Your task to perform on an android device: What is the news today? Image 0: 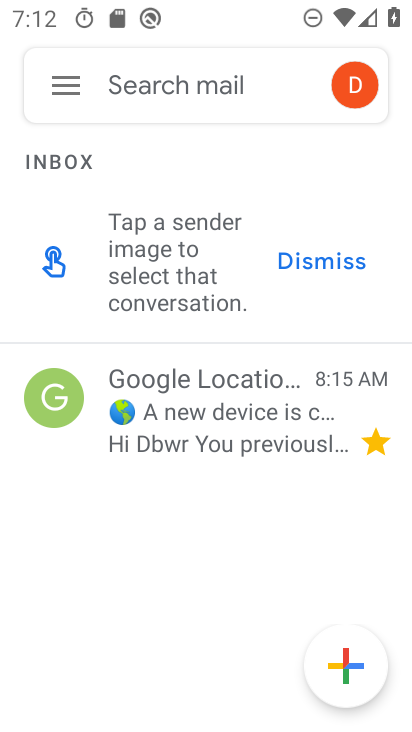
Step 0: press home button
Your task to perform on an android device: What is the news today? Image 1: 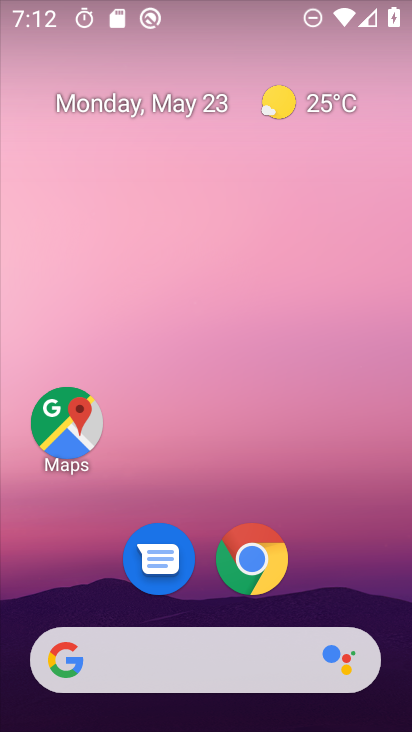
Step 1: drag from (408, 634) to (226, 1)
Your task to perform on an android device: What is the news today? Image 2: 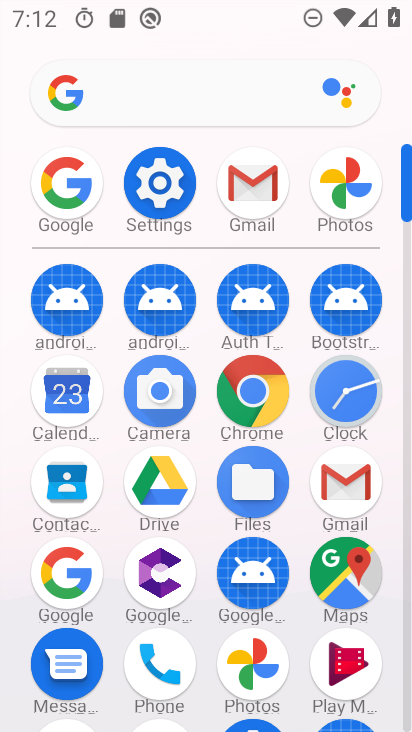
Step 2: click (70, 192)
Your task to perform on an android device: What is the news today? Image 3: 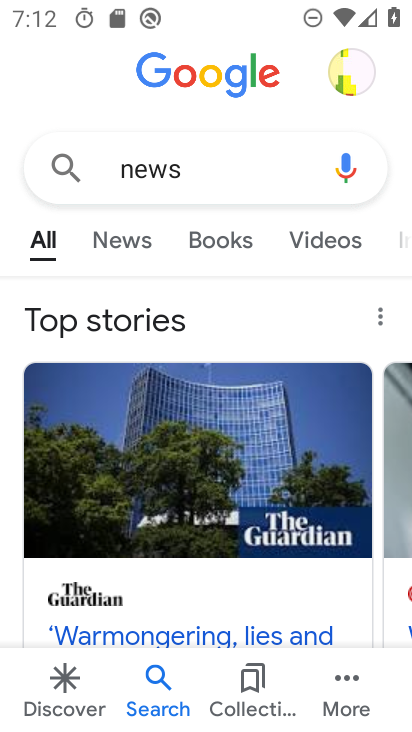
Step 3: press back button
Your task to perform on an android device: What is the news today? Image 4: 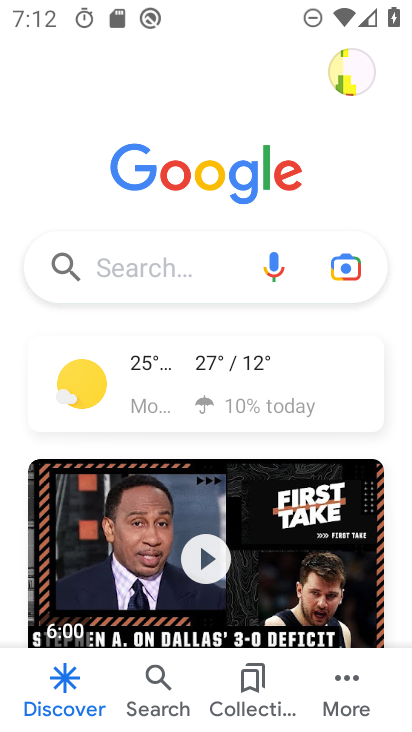
Step 4: click (155, 267)
Your task to perform on an android device: What is the news today? Image 5: 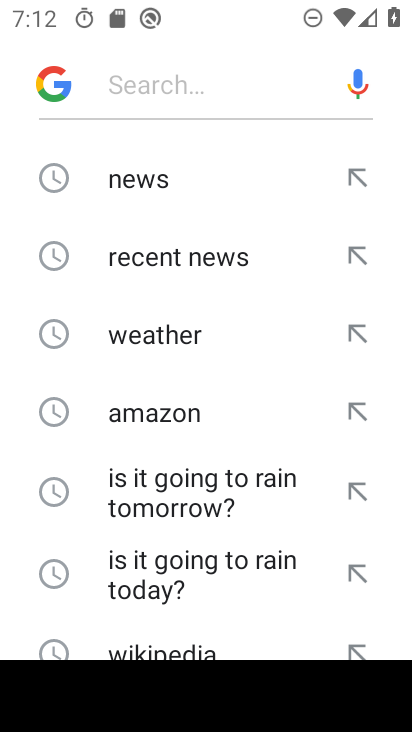
Step 5: drag from (187, 596) to (188, 169)
Your task to perform on an android device: What is the news today? Image 6: 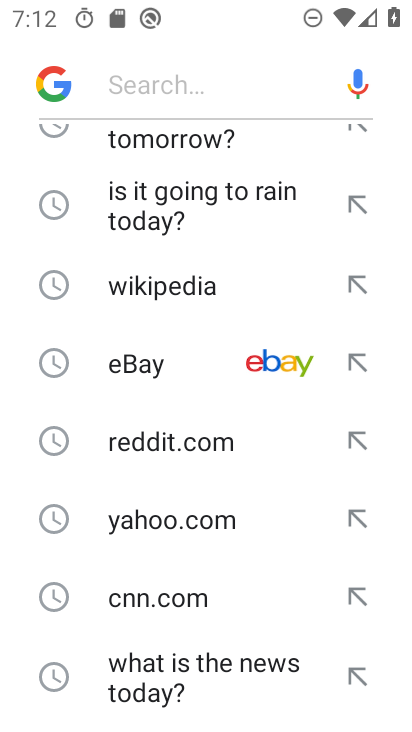
Step 6: click (166, 667)
Your task to perform on an android device: What is the news today? Image 7: 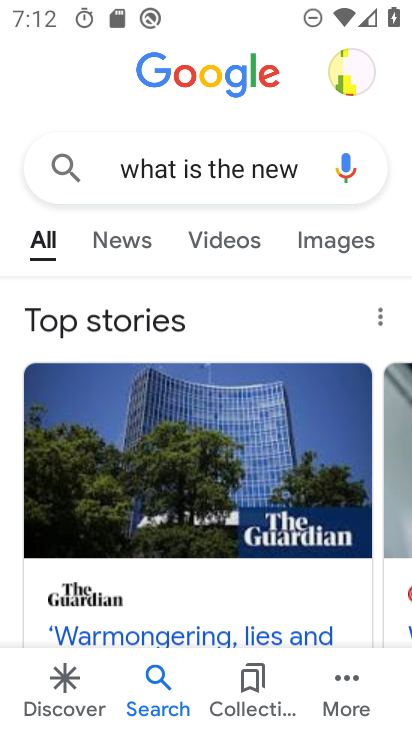
Step 7: task complete